Your task to perform on an android device: turn off improve location accuracy Image 0: 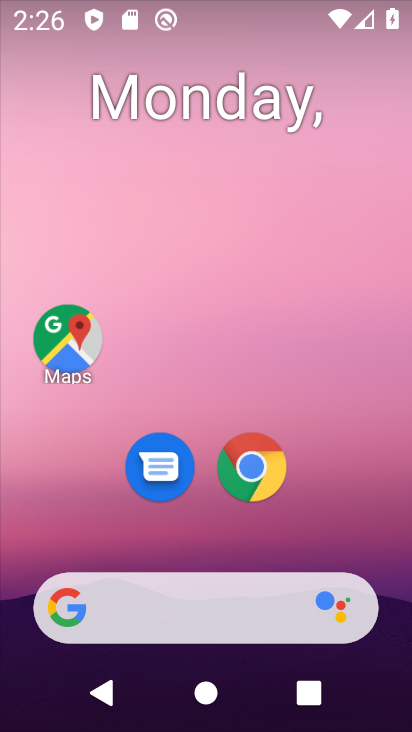
Step 0: drag from (399, 550) to (324, 235)
Your task to perform on an android device: turn off improve location accuracy Image 1: 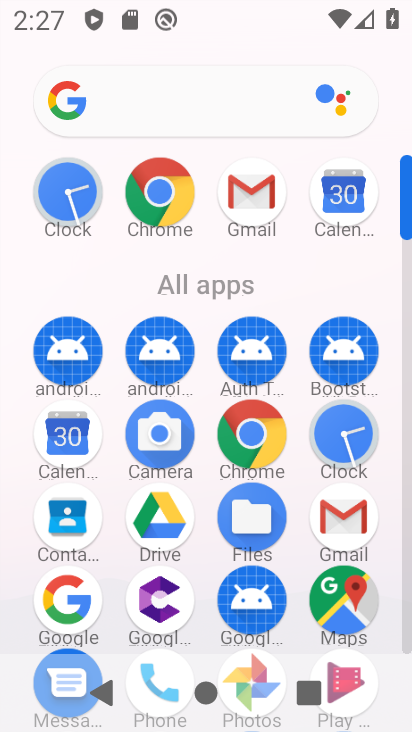
Step 1: click (407, 643)
Your task to perform on an android device: turn off improve location accuracy Image 2: 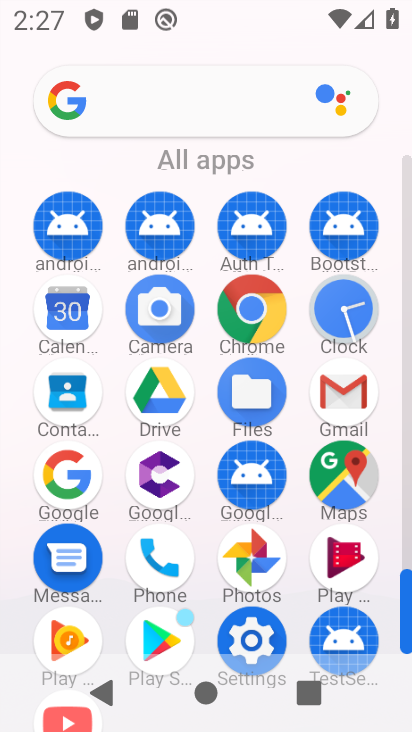
Step 2: click (271, 631)
Your task to perform on an android device: turn off improve location accuracy Image 3: 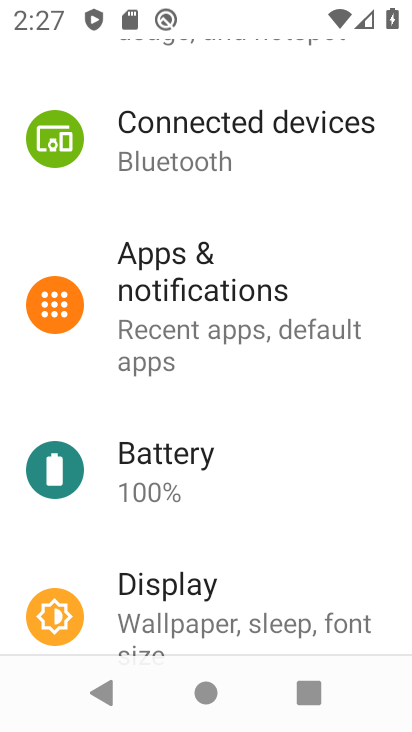
Step 3: drag from (282, 581) to (243, 300)
Your task to perform on an android device: turn off improve location accuracy Image 4: 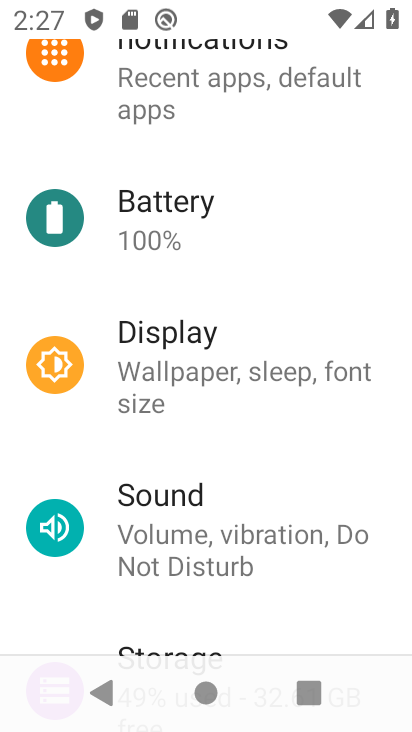
Step 4: drag from (268, 591) to (226, 290)
Your task to perform on an android device: turn off improve location accuracy Image 5: 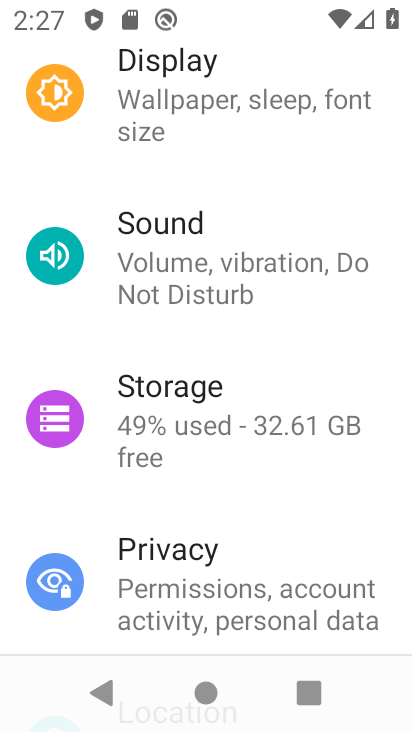
Step 5: drag from (275, 545) to (214, 230)
Your task to perform on an android device: turn off improve location accuracy Image 6: 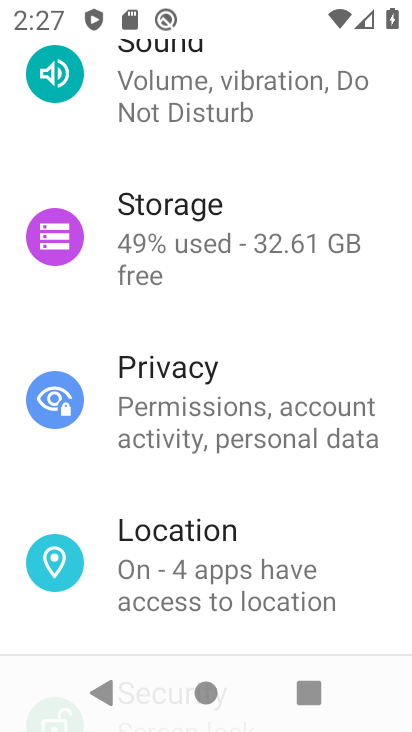
Step 6: click (240, 560)
Your task to perform on an android device: turn off improve location accuracy Image 7: 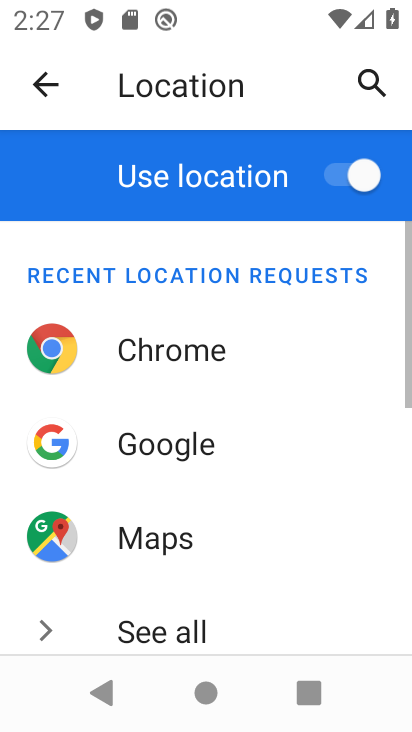
Step 7: drag from (240, 560) to (219, 191)
Your task to perform on an android device: turn off improve location accuracy Image 8: 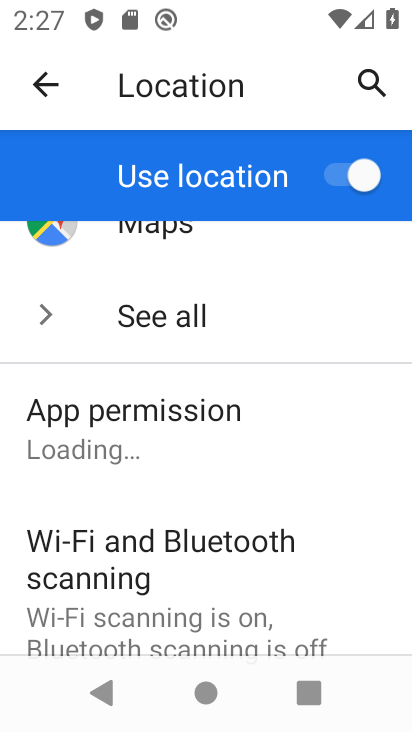
Step 8: drag from (260, 511) to (237, 181)
Your task to perform on an android device: turn off improve location accuracy Image 9: 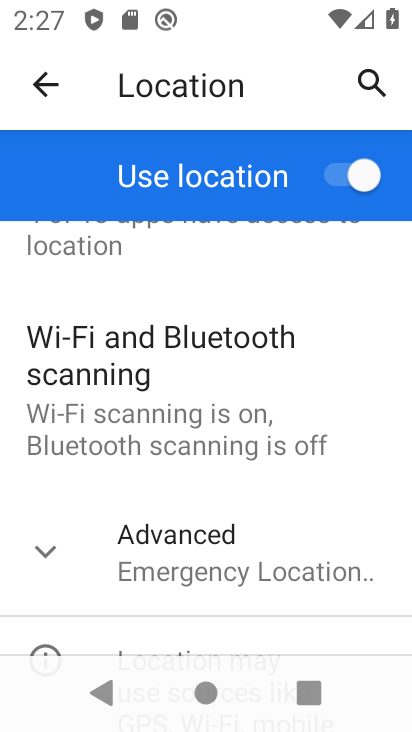
Step 9: click (291, 564)
Your task to perform on an android device: turn off improve location accuracy Image 10: 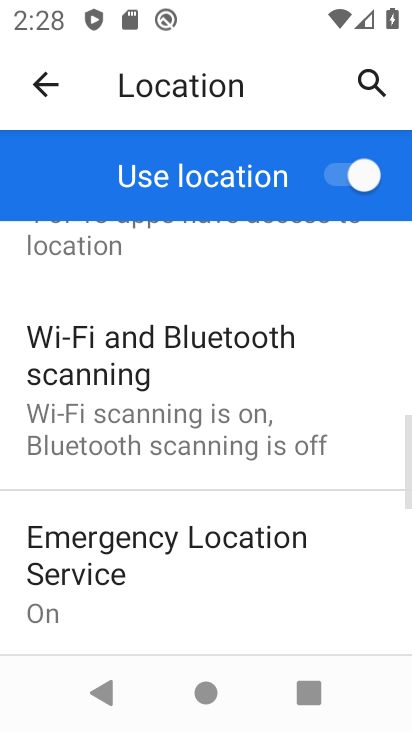
Step 10: drag from (291, 564) to (249, 304)
Your task to perform on an android device: turn off improve location accuracy Image 11: 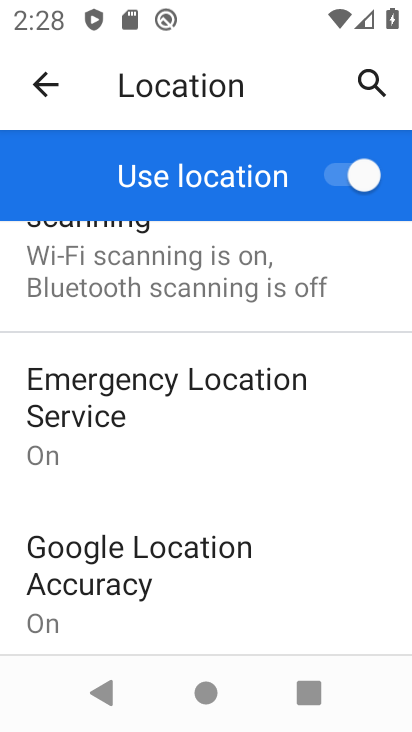
Step 11: click (264, 551)
Your task to perform on an android device: turn off improve location accuracy Image 12: 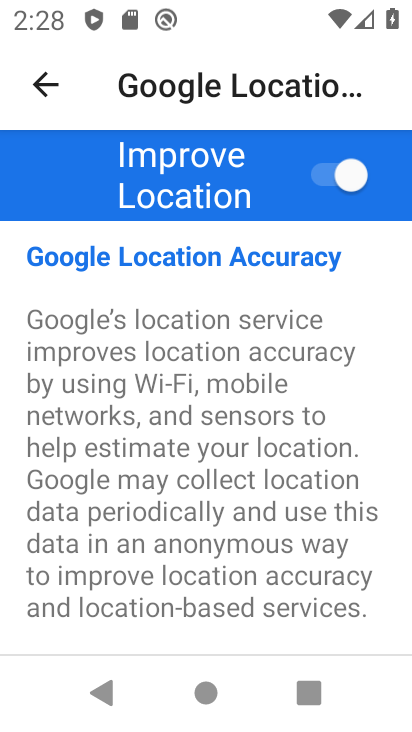
Step 12: click (338, 176)
Your task to perform on an android device: turn off improve location accuracy Image 13: 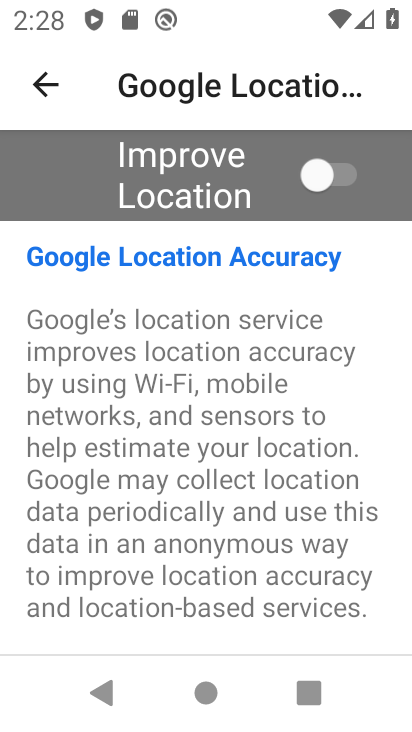
Step 13: task complete